Your task to perform on an android device: Go to privacy settings Image 0: 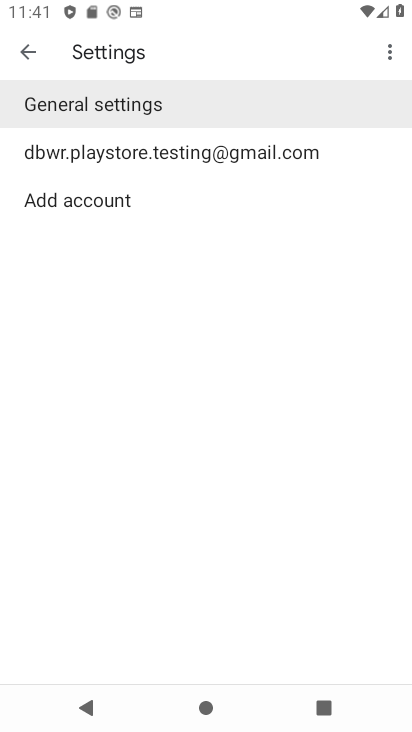
Step 0: press home button
Your task to perform on an android device: Go to privacy settings Image 1: 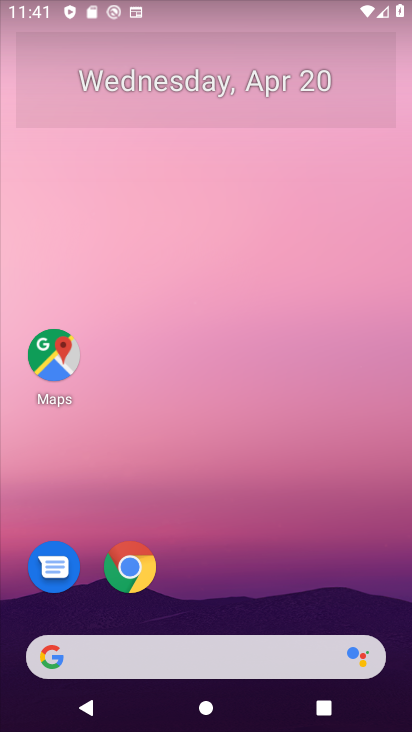
Step 1: drag from (190, 560) to (190, 227)
Your task to perform on an android device: Go to privacy settings Image 2: 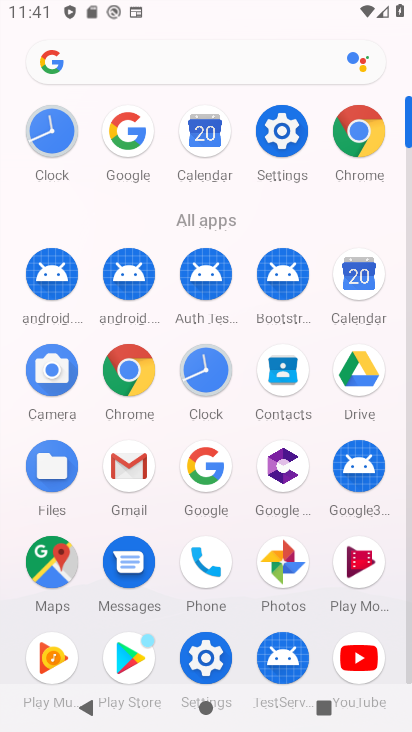
Step 2: click (281, 135)
Your task to perform on an android device: Go to privacy settings Image 3: 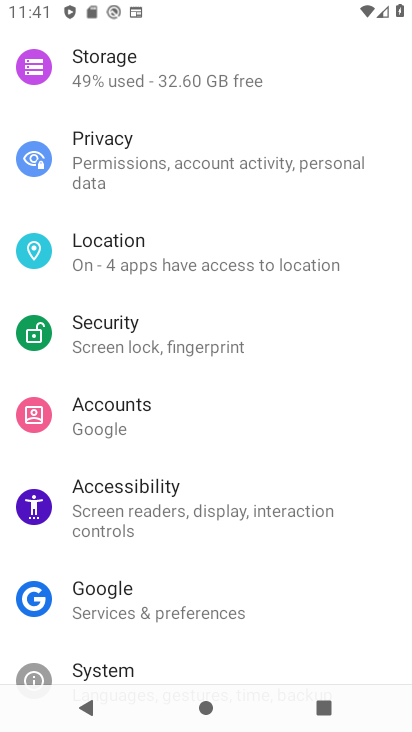
Step 3: click (134, 151)
Your task to perform on an android device: Go to privacy settings Image 4: 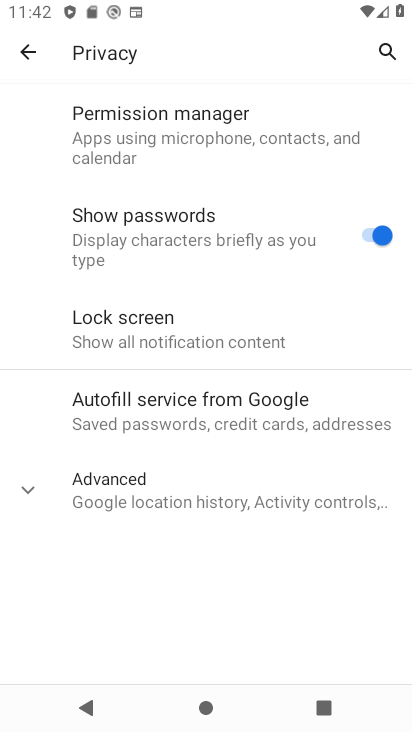
Step 4: click (128, 469)
Your task to perform on an android device: Go to privacy settings Image 5: 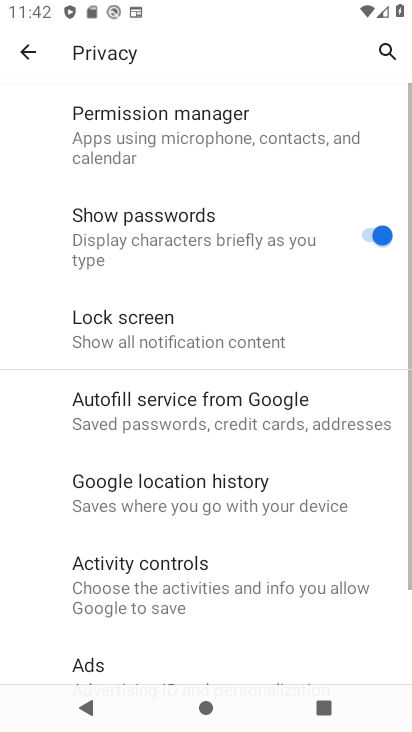
Step 5: task complete